Your task to perform on an android device: allow cookies in the chrome app Image 0: 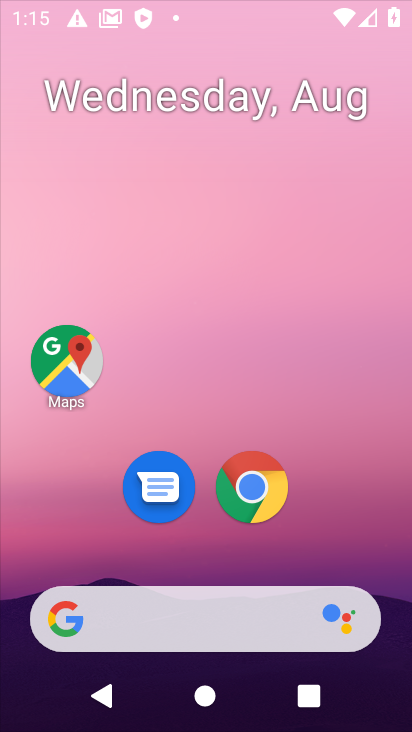
Step 0: press home button
Your task to perform on an android device: allow cookies in the chrome app Image 1: 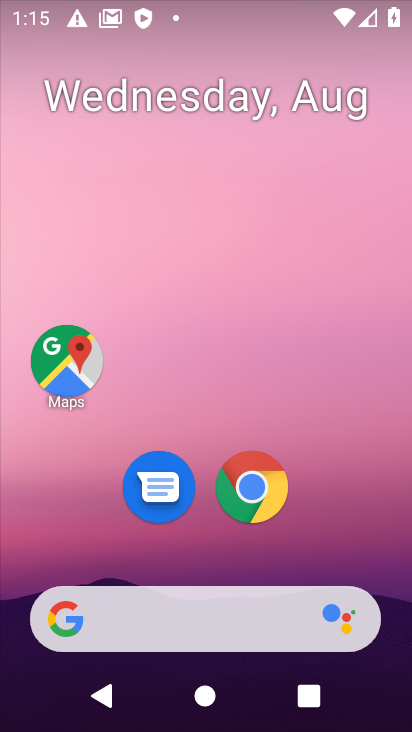
Step 1: click (264, 479)
Your task to perform on an android device: allow cookies in the chrome app Image 2: 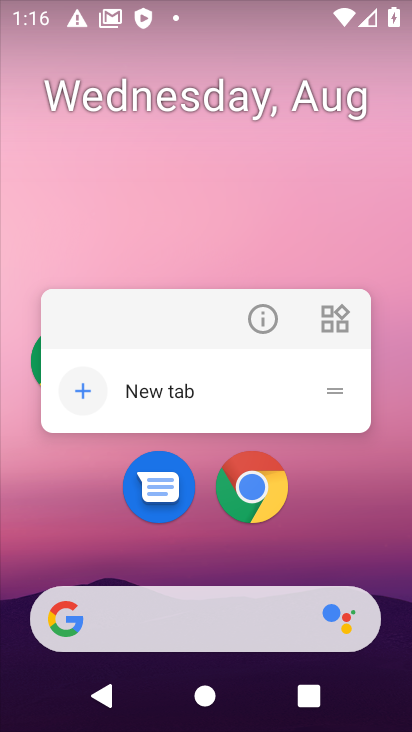
Step 2: click (255, 486)
Your task to perform on an android device: allow cookies in the chrome app Image 3: 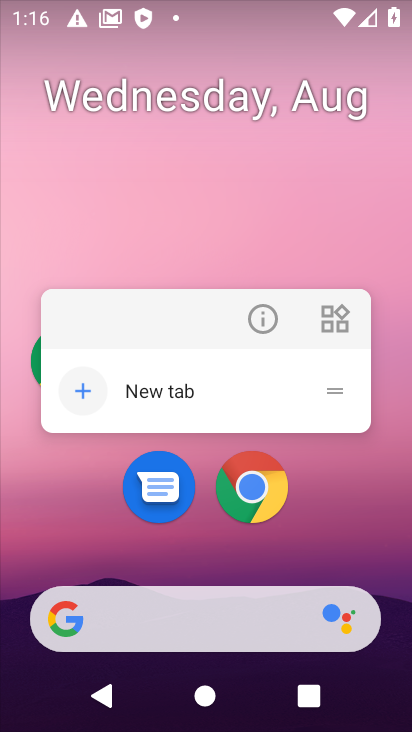
Step 3: click (263, 500)
Your task to perform on an android device: allow cookies in the chrome app Image 4: 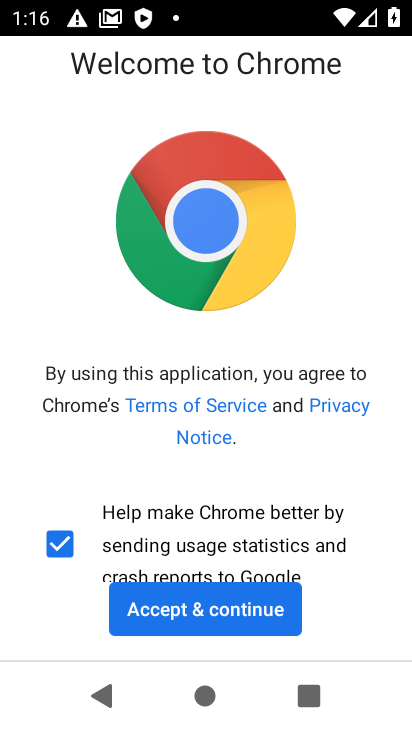
Step 4: click (195, 599)
Your task to perform on an android device: allow cookies in the chrome app Image 5: 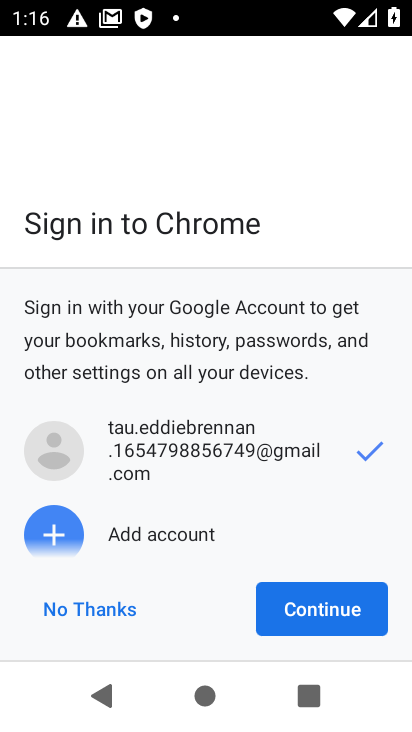
Step 5: click (295, 612)
Your task to perform on an android device: allow cookies in the chrome app Image 6: 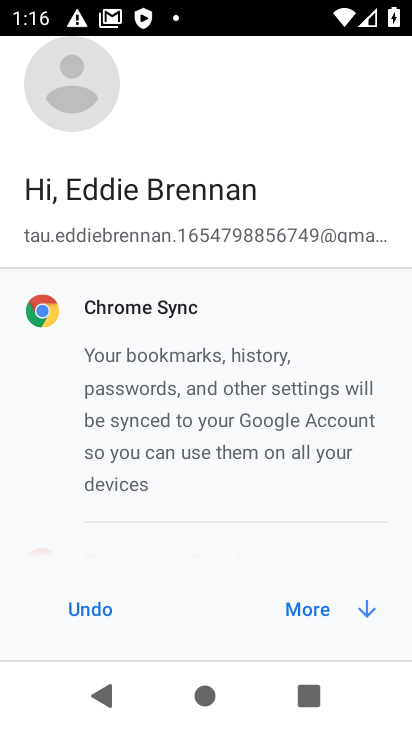
Step 6: click (336, 615)
Your task to perform on an android device: allow cookies in the chrome app Image 7: 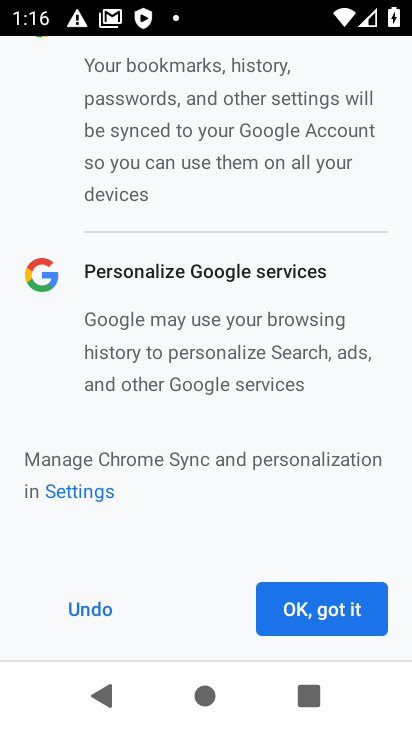
Step 7: click (336, 615)
Your task to perform on an android device: allow cookies in the chrome app Image 8: 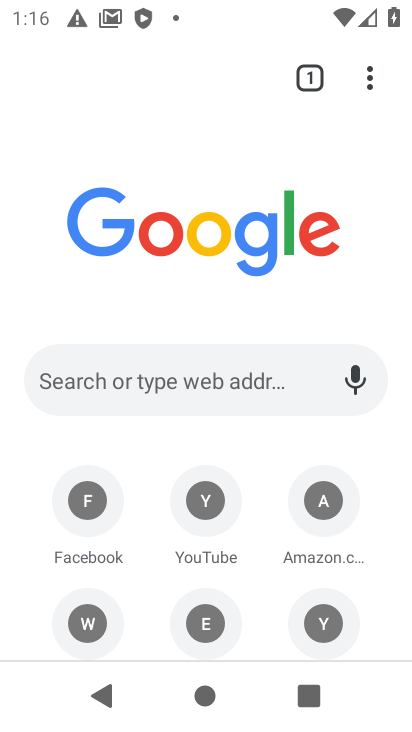
Step 8: drag from (370, 71) to (154, 562)
Your task to perform on an android device: allow cookies in the chrome app Image 9: 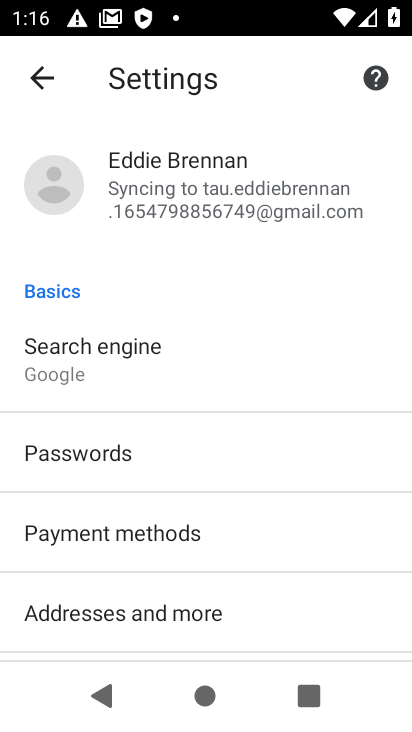
Step 9: drag from (281, 607) to (239, 234)
Your task to perform on an android device: allow cookies in the chrome app Image 10: 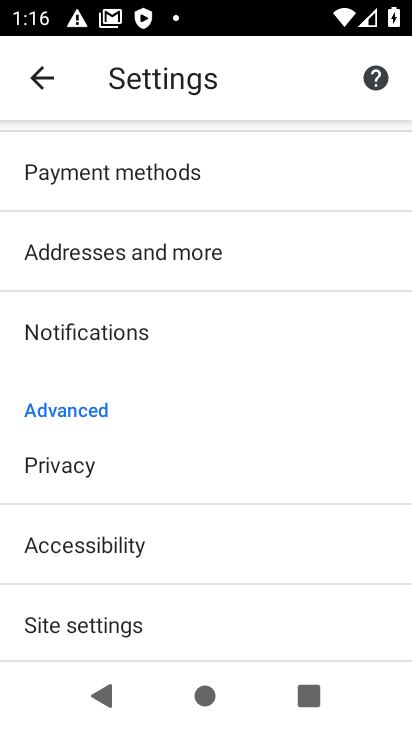
Step 10: click (88, 623)
Your task to perform on an android device: allow cookies in the chrome app Image 11: 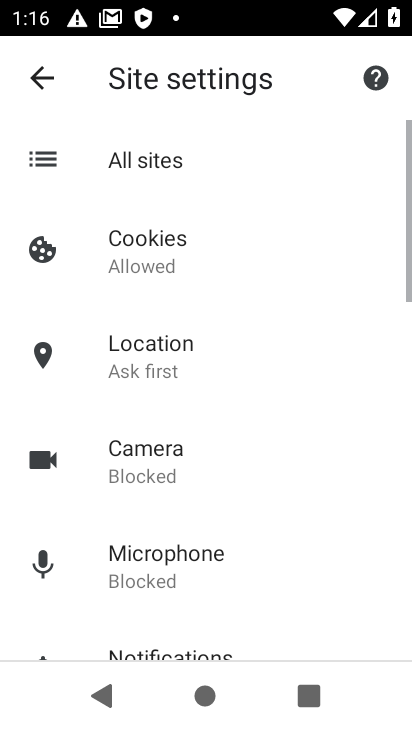
Step 11: click (143, 241)
Your task to perform on an android device: allow cookies in the chrome app Image 12: 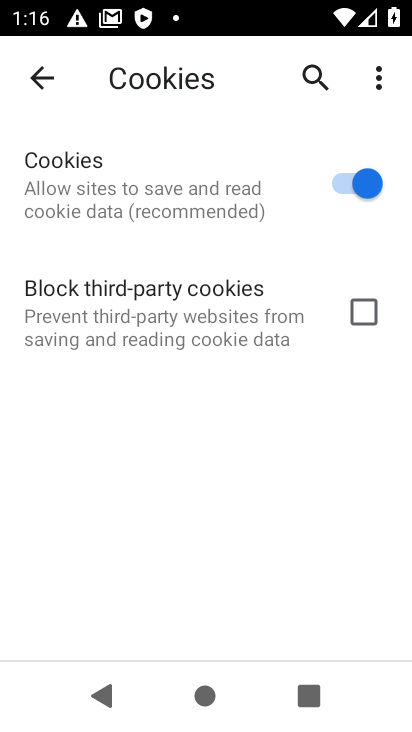
Step 12: task complete